Your task to perform on an android device: toggle airplane mode Image 0: 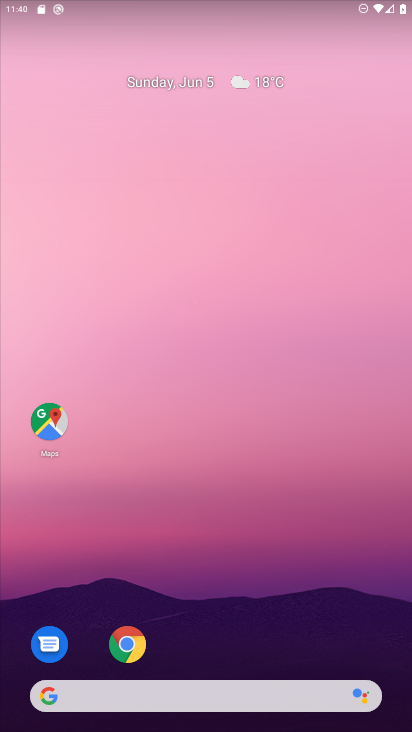
Step 0: drag from (265, 719) to (329, 178)
Your task to perform on an android device: toggle airplane mode Image 1: 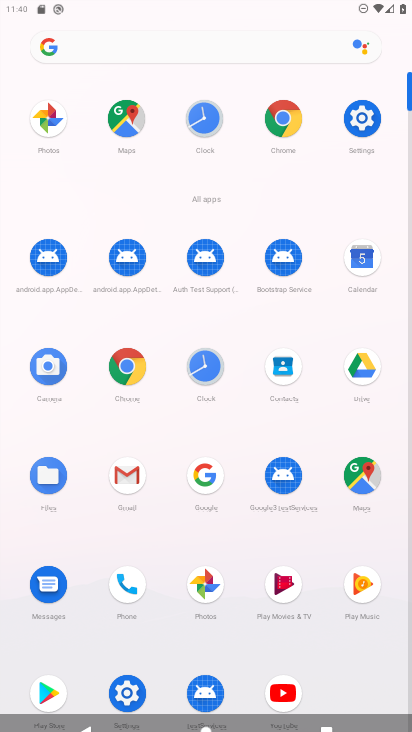
Step 1: click (366, 121)
Your task to perform on an android device: toggle airplane mode Image 2: 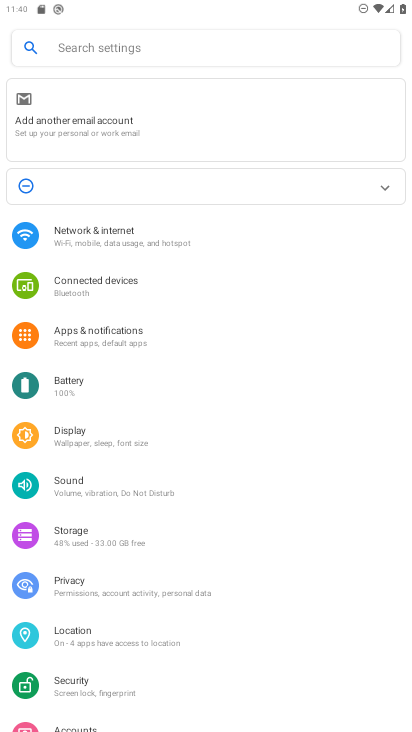
Step 2: click (108, 236)
Your task to perform on an android device: toggle airplane mode Image 3: 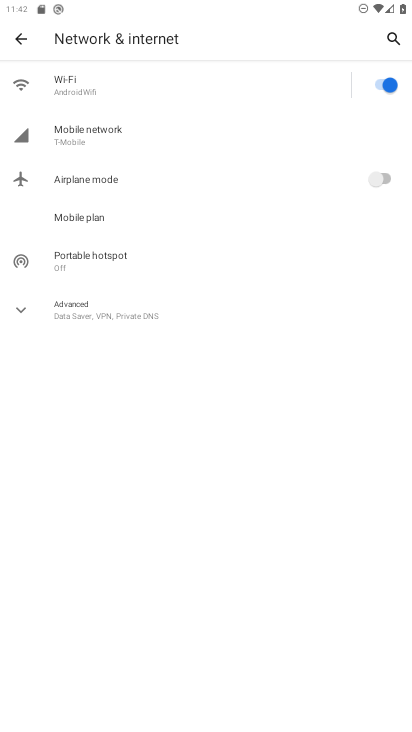
Step 3: task complete